Your task to perform on an android device: When is my next appointment? Image 0: 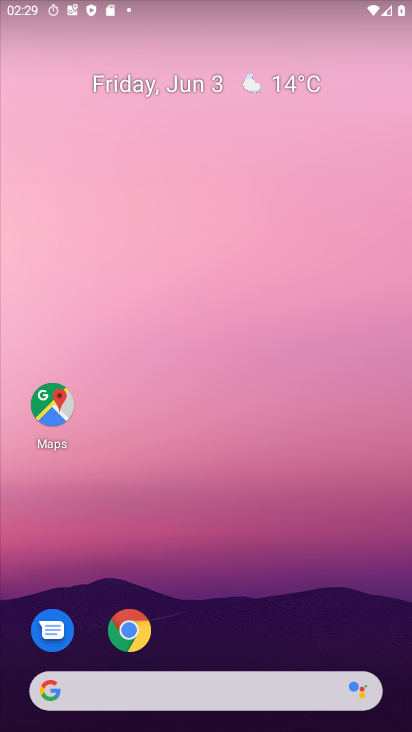
Step 0: drag from (390, 699) to (333, 340)
Your task to perform on an android device: When is my next appointment? Image 1: 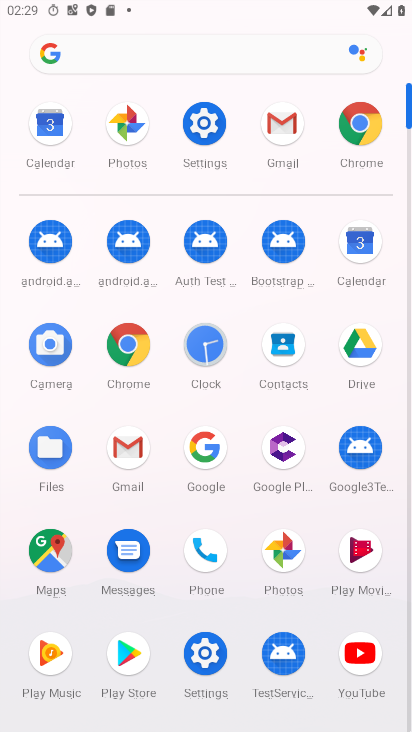
Step 1: click (347, 256)
Your task to perform on an android device: When is my next appointment? Image 2: 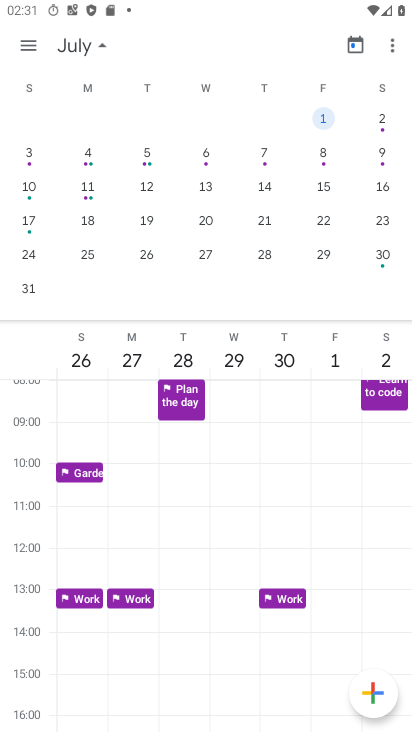
Step 2: click (100, 42)
Your task to perform on an android device: When is my next appointment? Image 3: 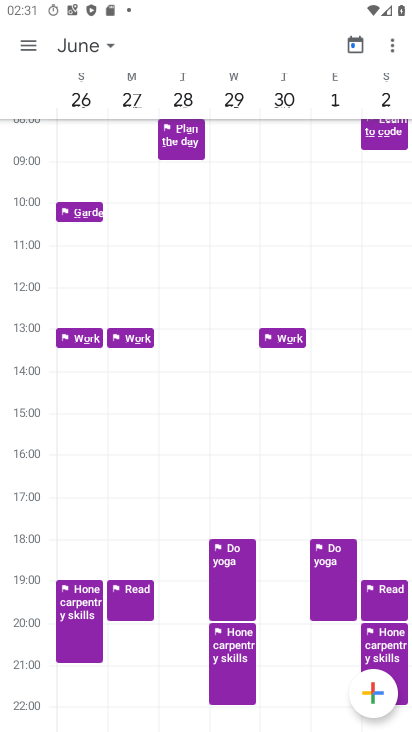
Step 3: click (114, 42)
Your task to perform on an android device: When is my next appointment? Image 4: 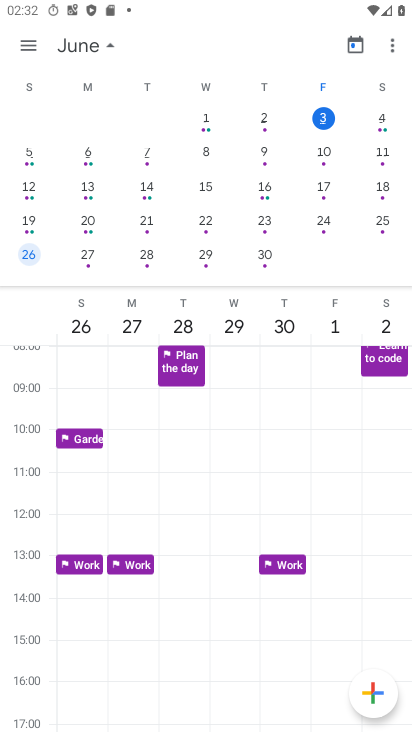
Step 4: click (27, 43)
Your task to perform on an android device: When is my next appointment? Image 5: 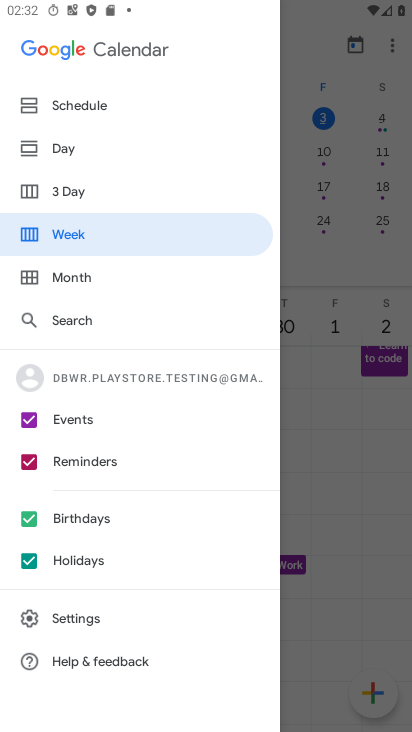
Step 5: drag from (145, 178) to (166, 433)
Your task to perform on an android device: When is my next appointment? Image 6: 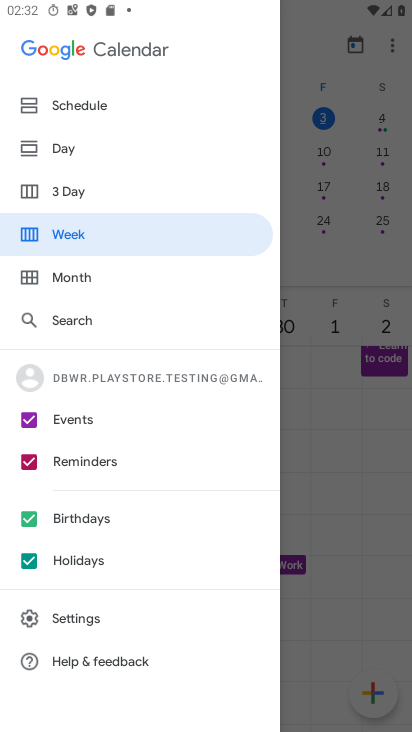
Step 6: click (40, 100)
Your task to perform on an android device: When is my next appointment? Image 7: 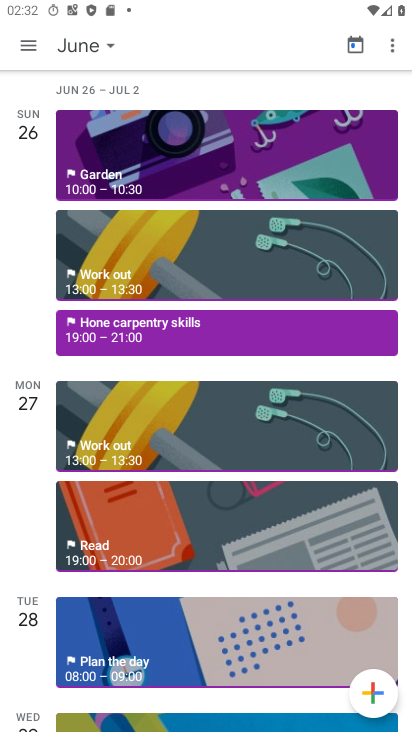
Step 7: task complete